Your task to perform on an android device: toggle pop-ups in chrome Image 0: 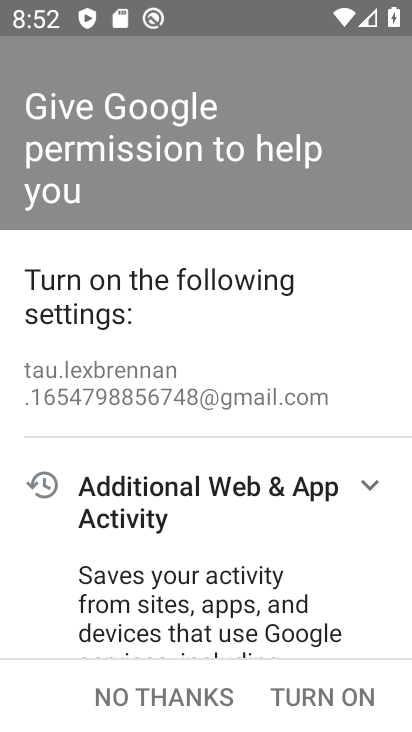
Step 0: click (154, 691)
Your task to perform on an android device: toggle pop-ups in chrome Image 1: 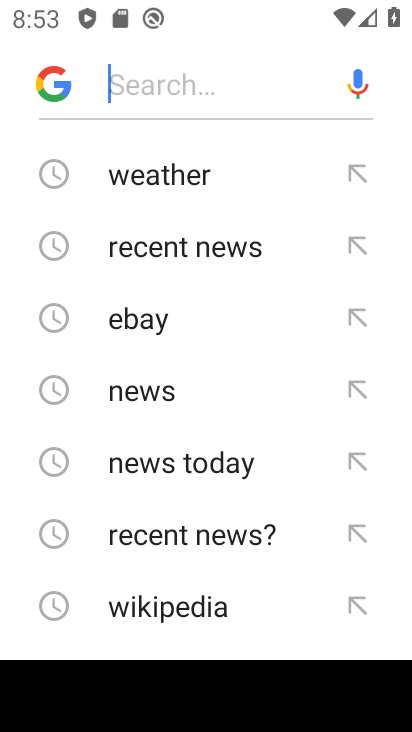
Step 1: press home button
Your task to perform on an android device: toggle pop-ups in chrome Image 2: 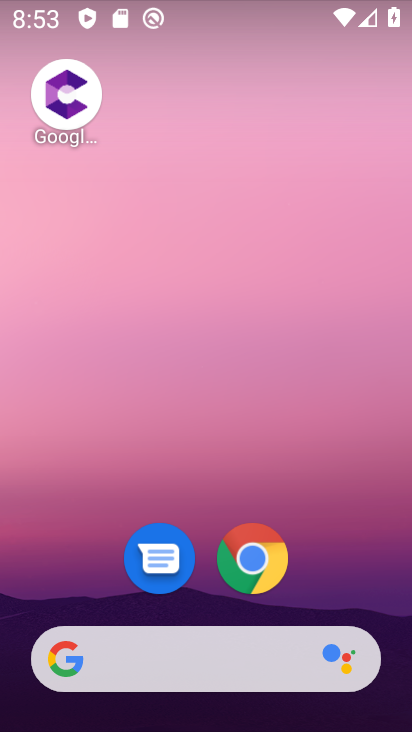
Step 2: drag from (361, 568) to (291, 72)
Your task to perform on an android device: toggle pop-ups in chrome Image 3: 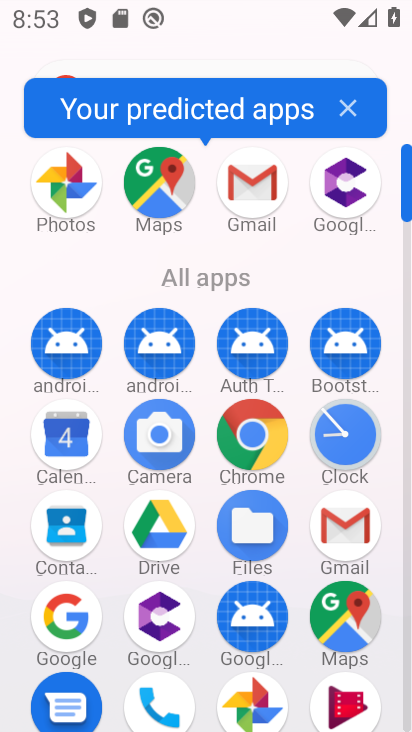
Step 3: drag from (215, 553) to (317, 194)
Your task to perform on an android device: toggle pop-ups in chrome Image 4: 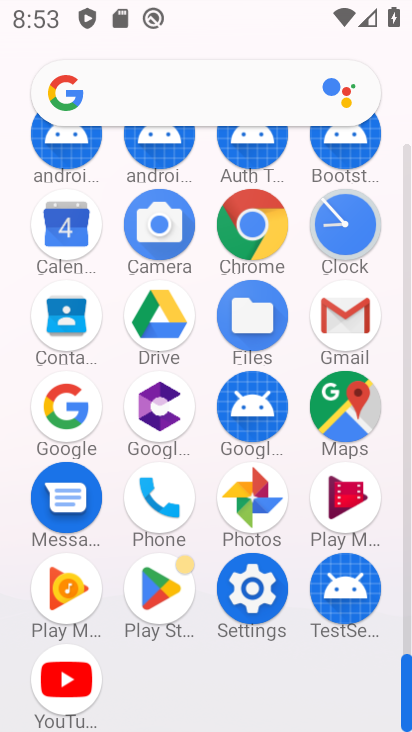
Step 4: click (262, 575)
Your task to perform on an android device: toggle pop-ups in chrome Image 5: 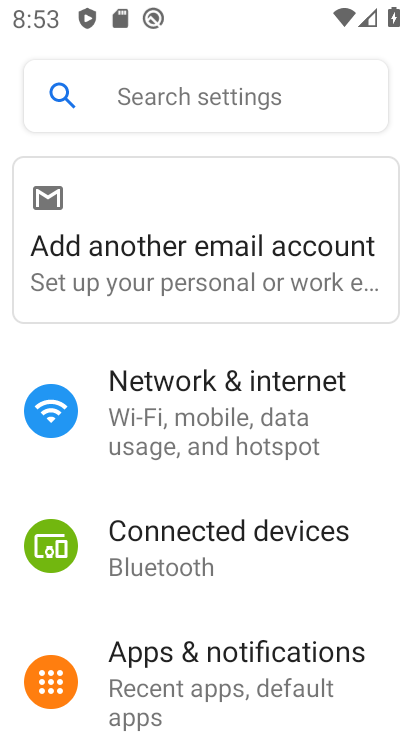
Step 5: drag from (270, 598) to (271, 199)
Your task to perform on an android device: toggle pop-ups in chrome Image 6: 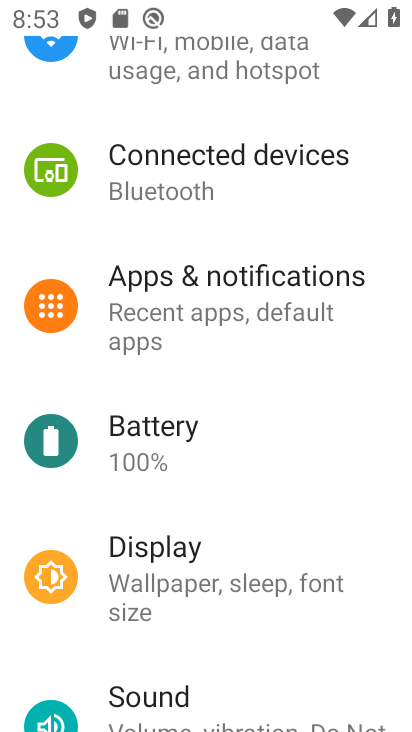
Step 6: press home button
Your task to perform on an android device: toggle pop-ups in chrome Image 7: 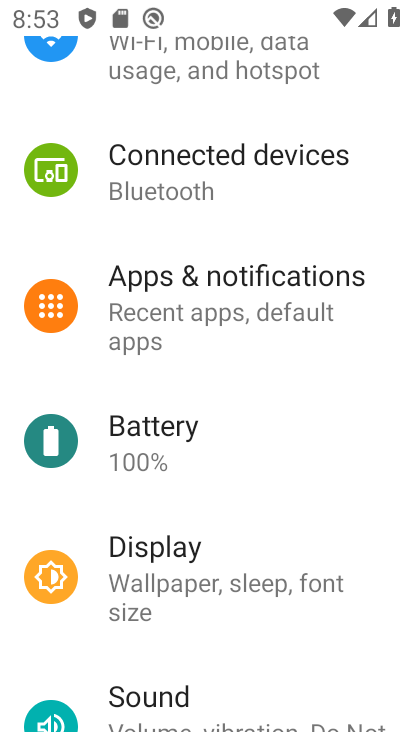
Step 7: press home button
Your task to perform on an android device: toggle pop-ups in chrome Image 8: 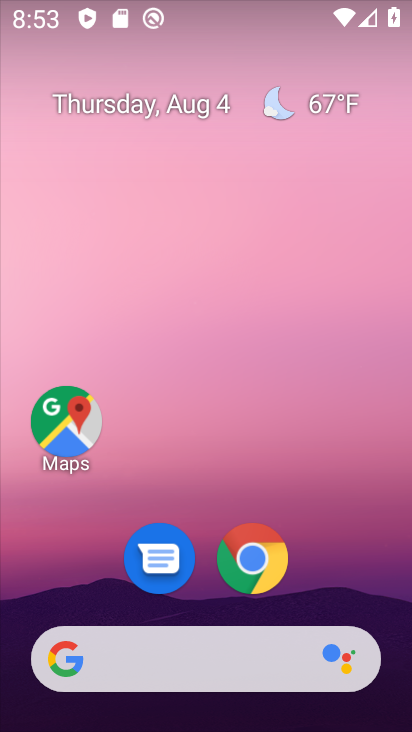
Step 8: drag from (331, 567) to (388, 129)
Your task to perform on an android device: toggle pop-ups in chrome Image 9: 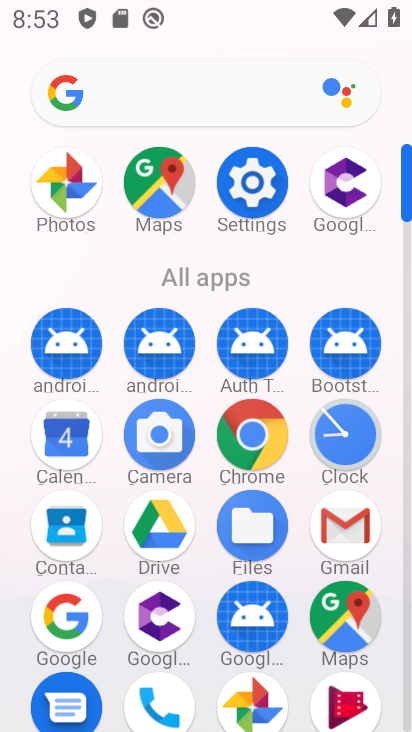
Step 9: click (254, 432)
Your task to perform on an android device: toggle pop-ups in chrome Image 10: 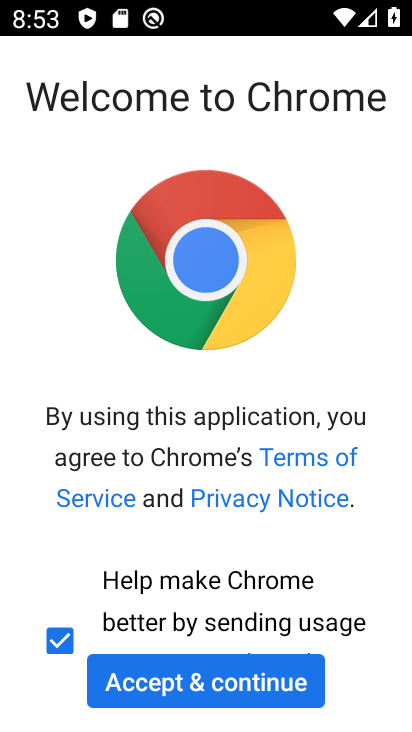
Step 10: click (251, 686)
Your task to perform on an android device: toggle pop-ups in chrome Image 11: 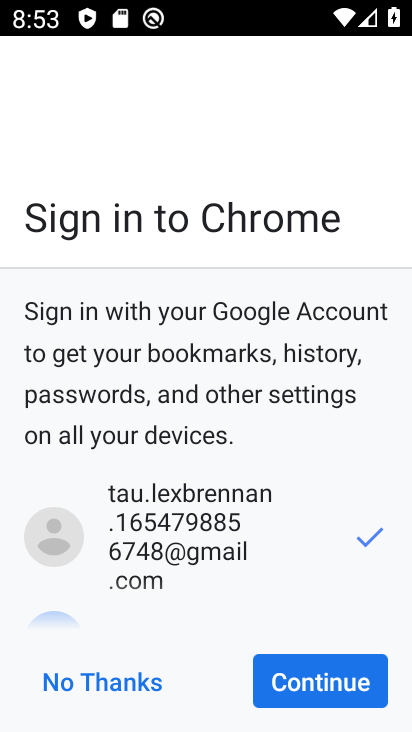
Step 11: click (303, 687)
Your task to perform on an android device: toggle pop-ups in chrome Image 12: 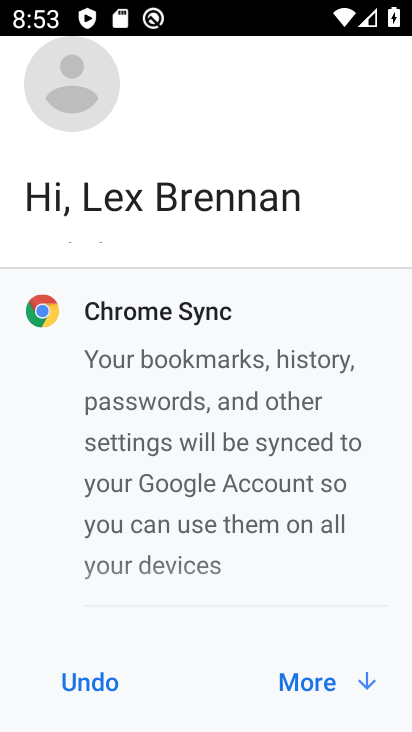
Step 12: click (303, 686)
Your task to perform on an android device: toggle pop-ups in chrome Image 13: 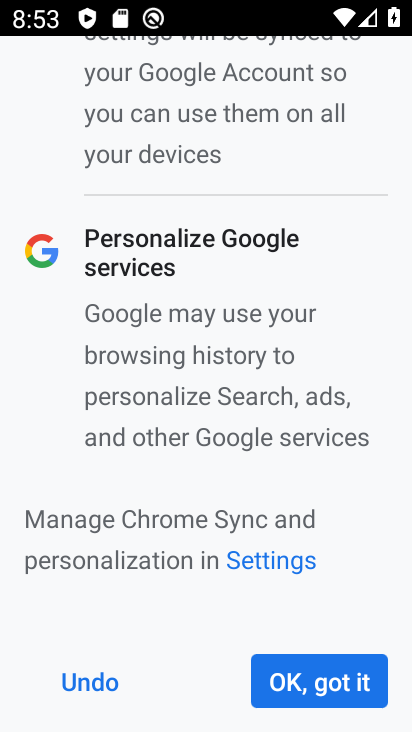
Step 13: click (289, 677)
Your task to perform on an android device: toggle pop-ups in chrome Image 14: 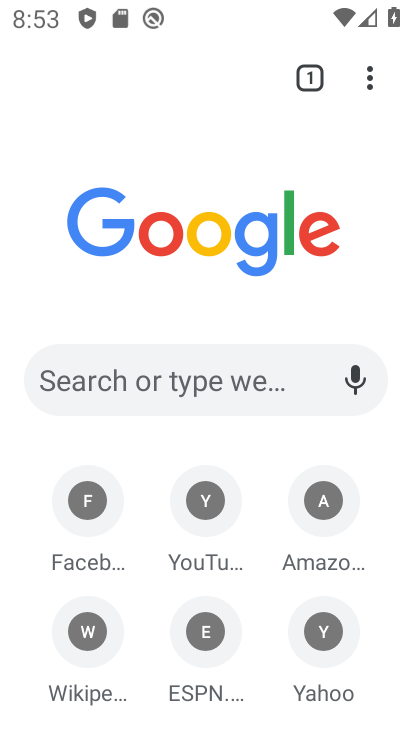
Step 14: drag from (383, 70) to (128, 610)
Your task to perform on an android device: toggle pop-ups in chrome Image 15: 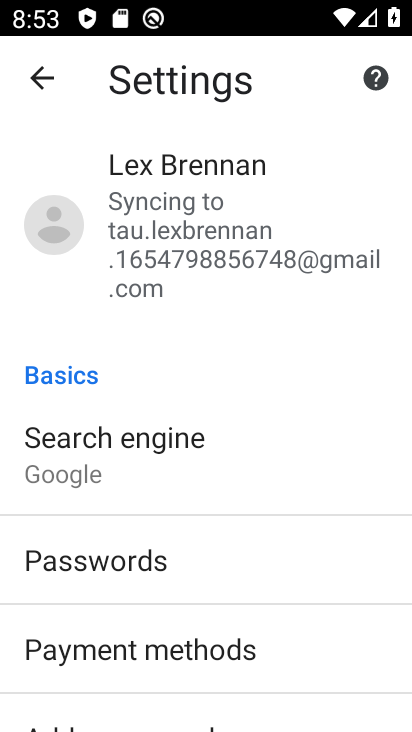
Step 15: drag from (287, 640) to (314, 256)
Your task to perform on an android device: toggle pop-ups in chrome Image 16: 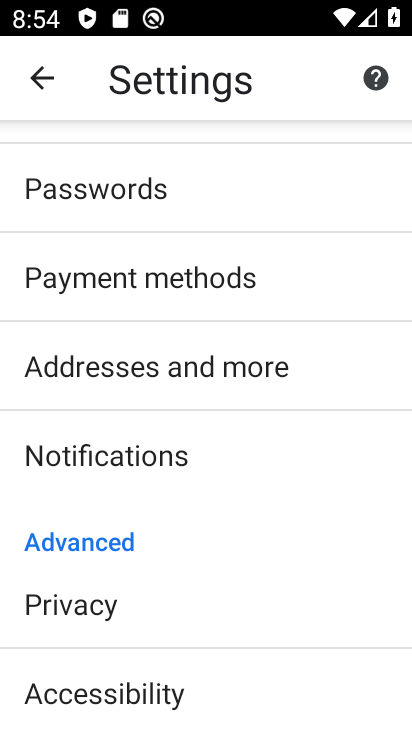
Step 16: drag from (249, 622) to (338, 329)
Your task to perform on an android device: toggle pop-ups in chrome Image 17: 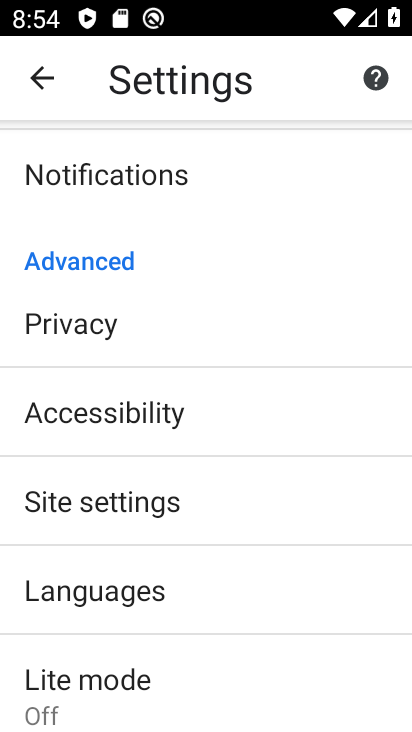
Step 17: click (136, 500)
Your task to perform on an android device: toggle pop-ups in chrome Image 18: 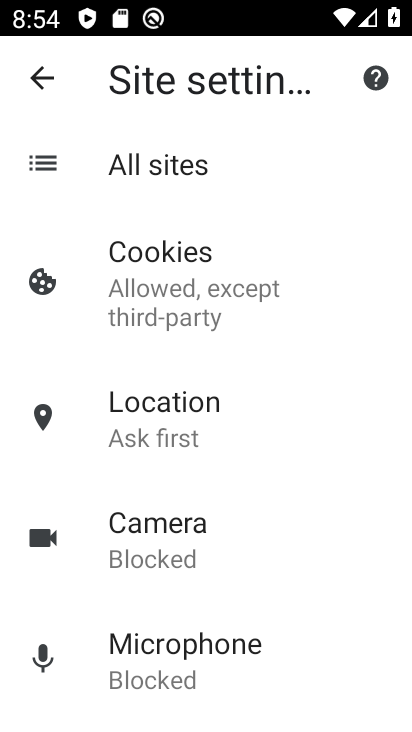
Step 18: drag from (340, 618) to (371, 177)
Your task to perform on an android device: toggle pop-ups in chrome Image 19: 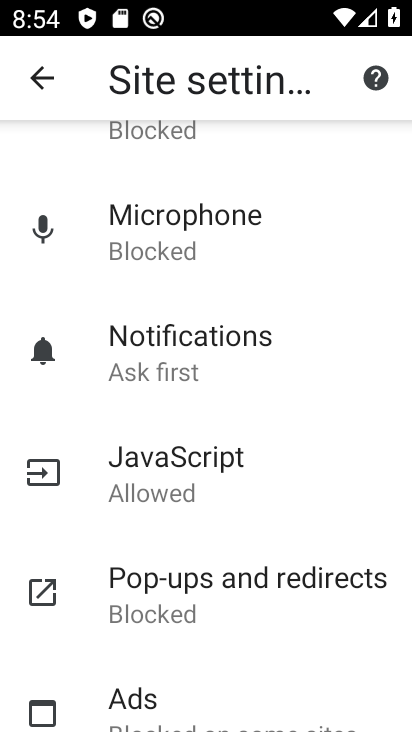
Step 19: click (159, 570)
Your task to perform on an android device: toggle pop-ups in chrome Image 20: 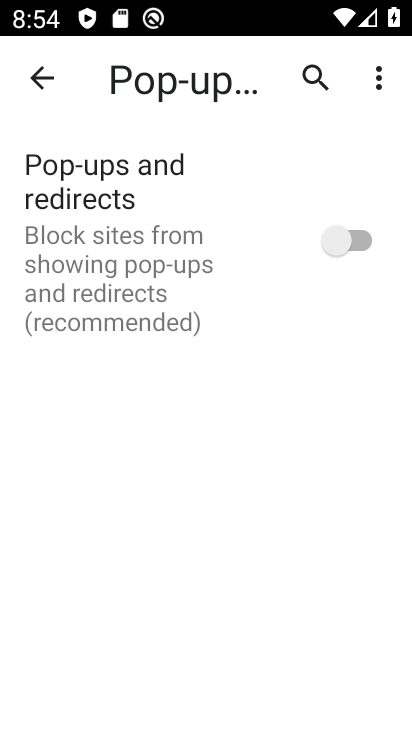
Step 20: click (366, 226)
Your task to perform on an android device: toggle pop-ups in chrome Image 21: 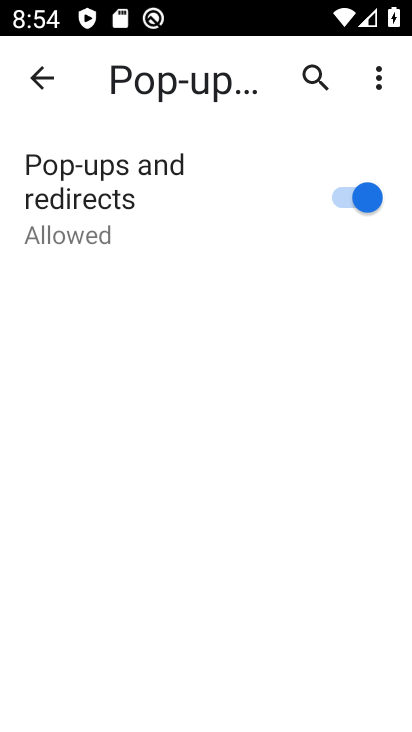
Step 21: task complete